Your task to perform on an android device: turn on showing notifications on the lock screen Image 0: 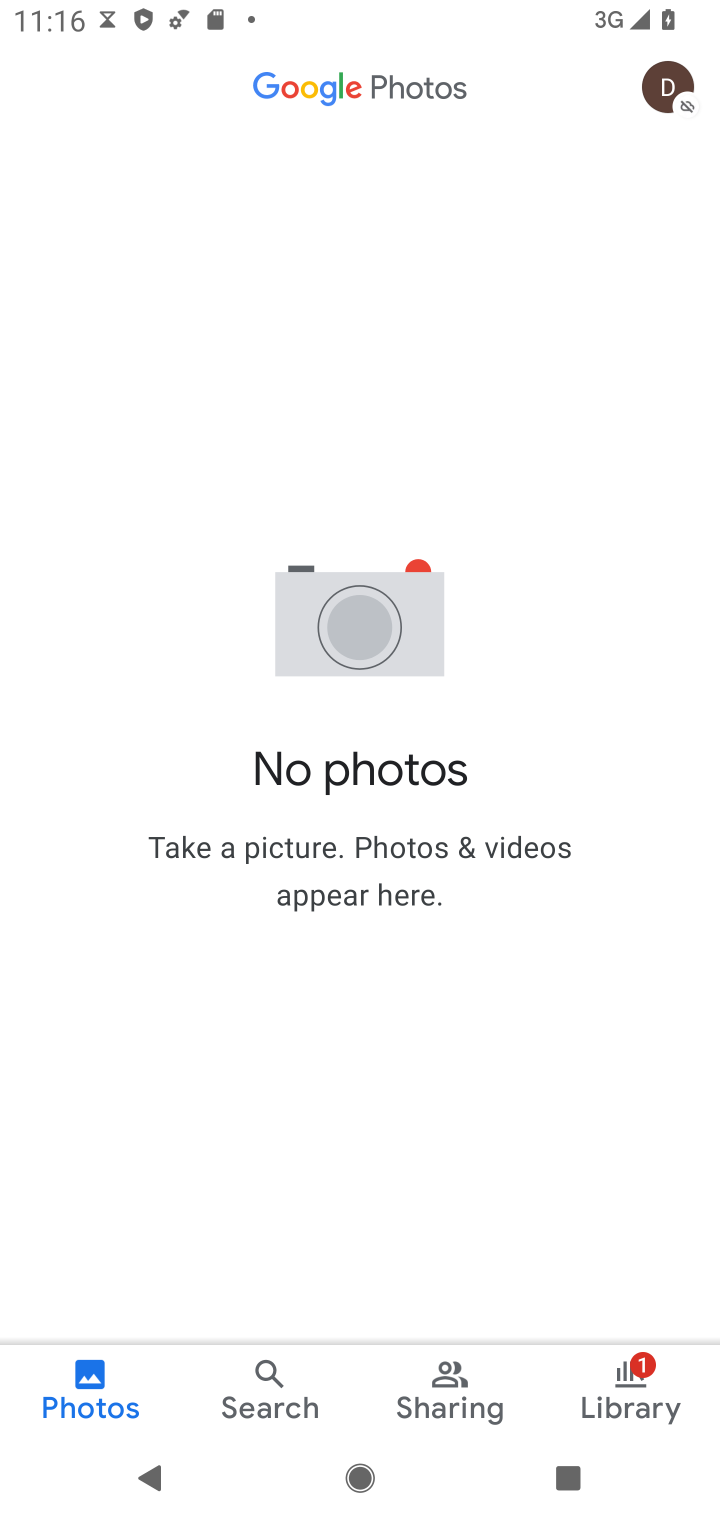
Step 0: press back button
Your task to perform on an android device: turn on showing notifications on the lock screen Image 1: 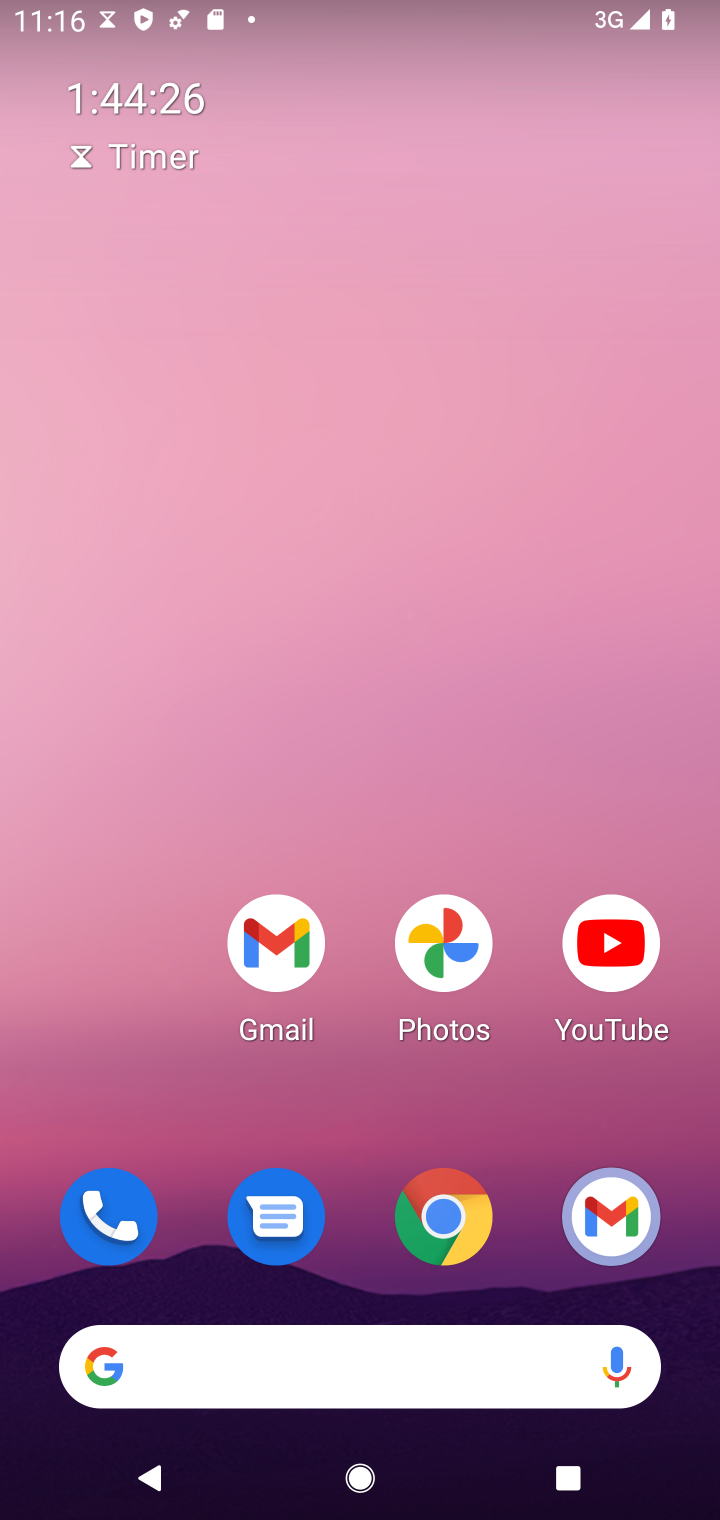
Step 1: drag from (120, 1114) to (277, 85)
Your task to perform on an android device: turn on showing notifications on the lock screen Image 2: 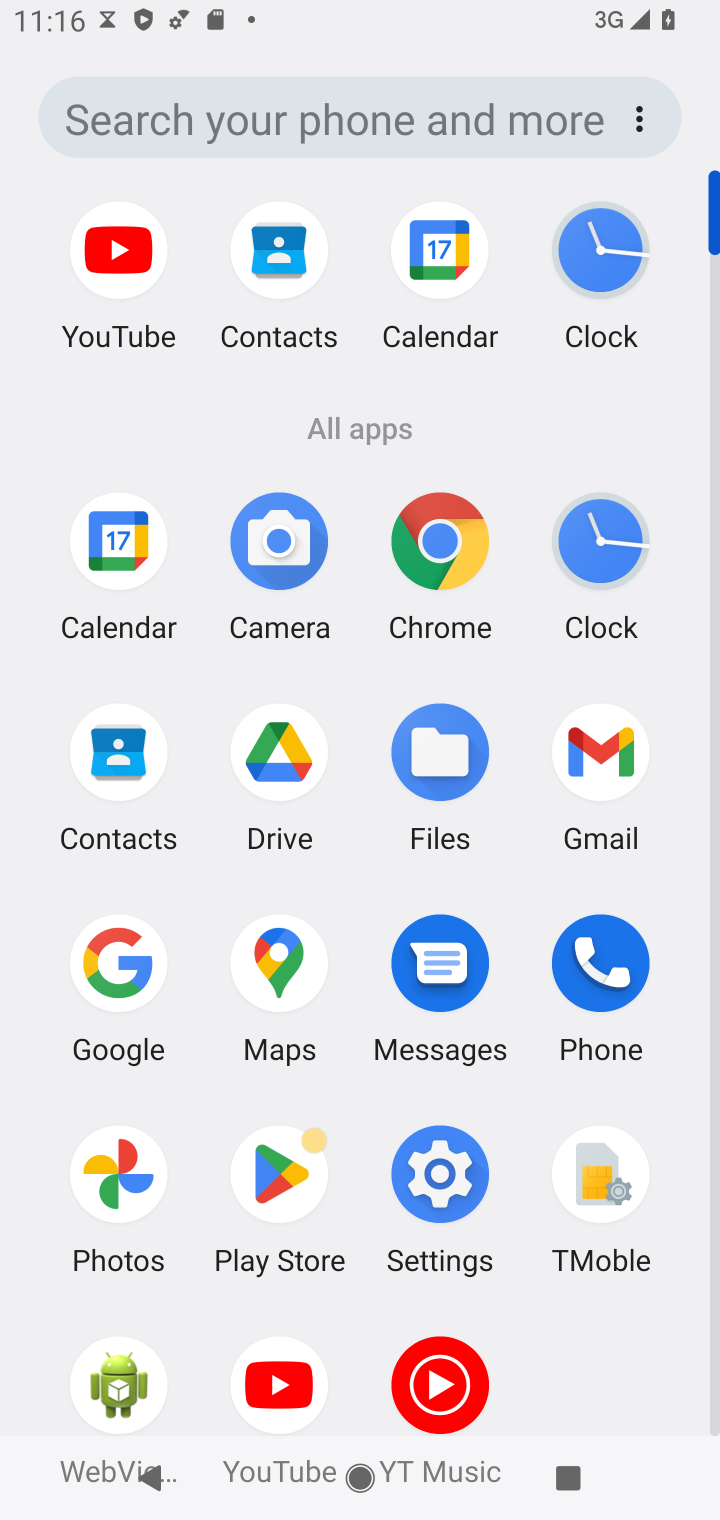
Step 2: click (481, 1180)
Your task to perform on an android device: turn on showing notifications on the lock screen Image 3: 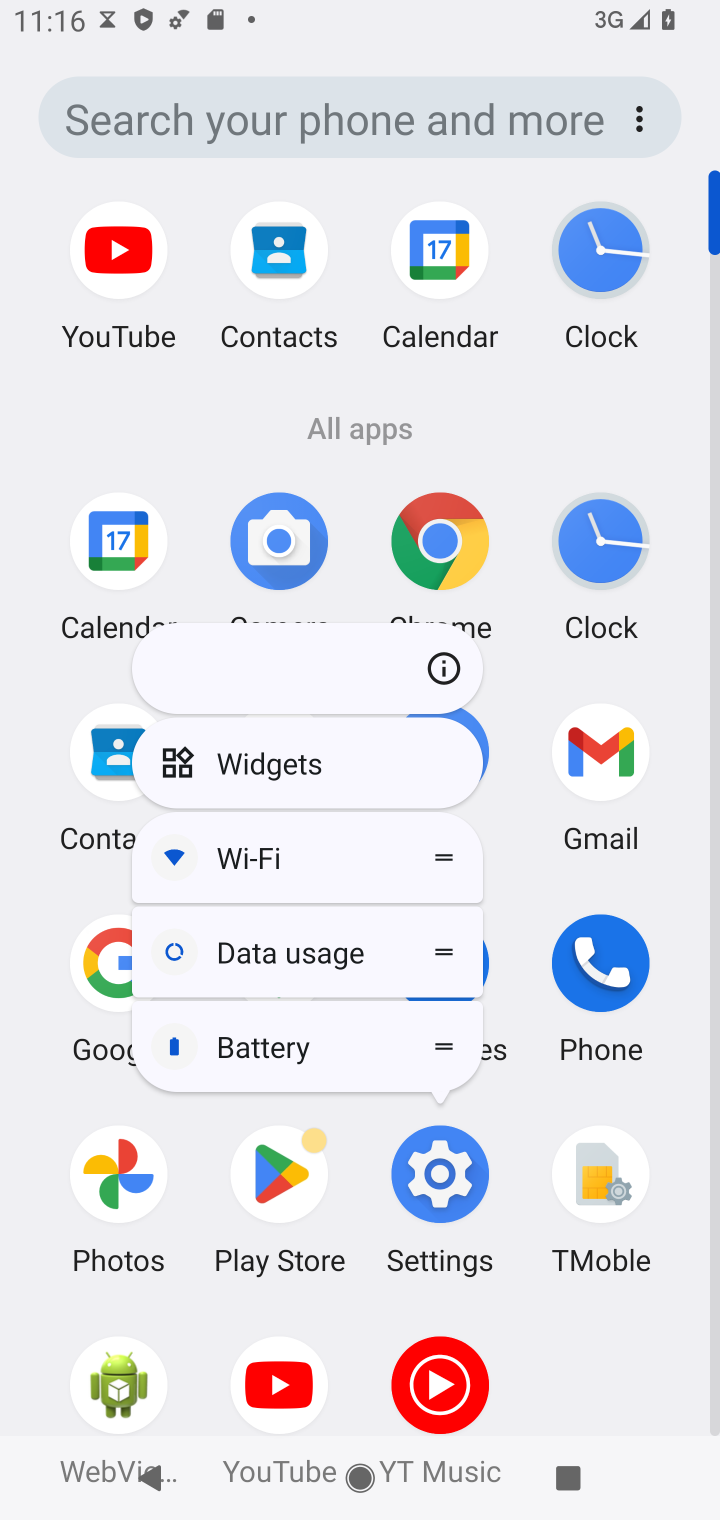
Step 3: click (416, 1170)
Your task to perform on an android device: turn on showing notifications on the lock screen Image 4: 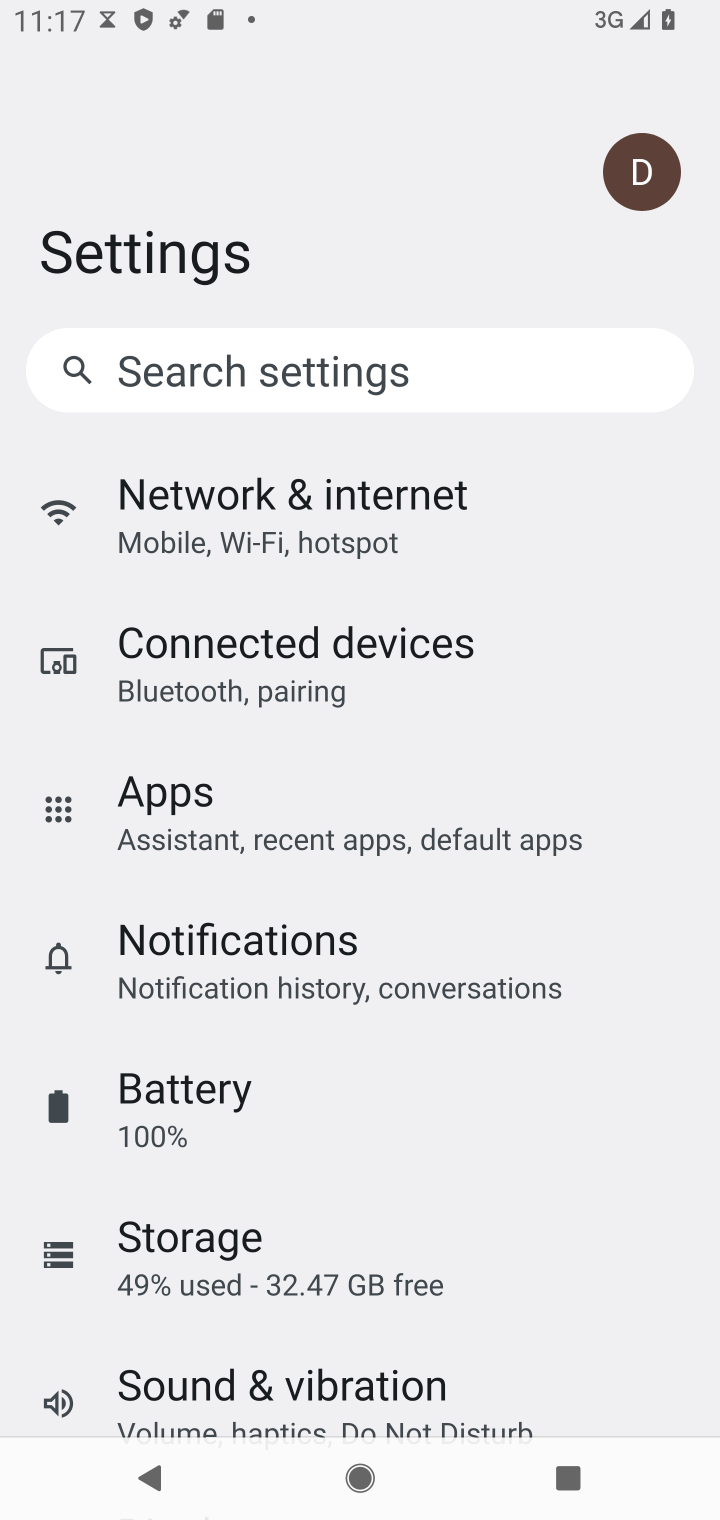
Step 4: click (374, 978)
Your task to perform on an android device: turn on showing notifications on the lock screen Image 5: 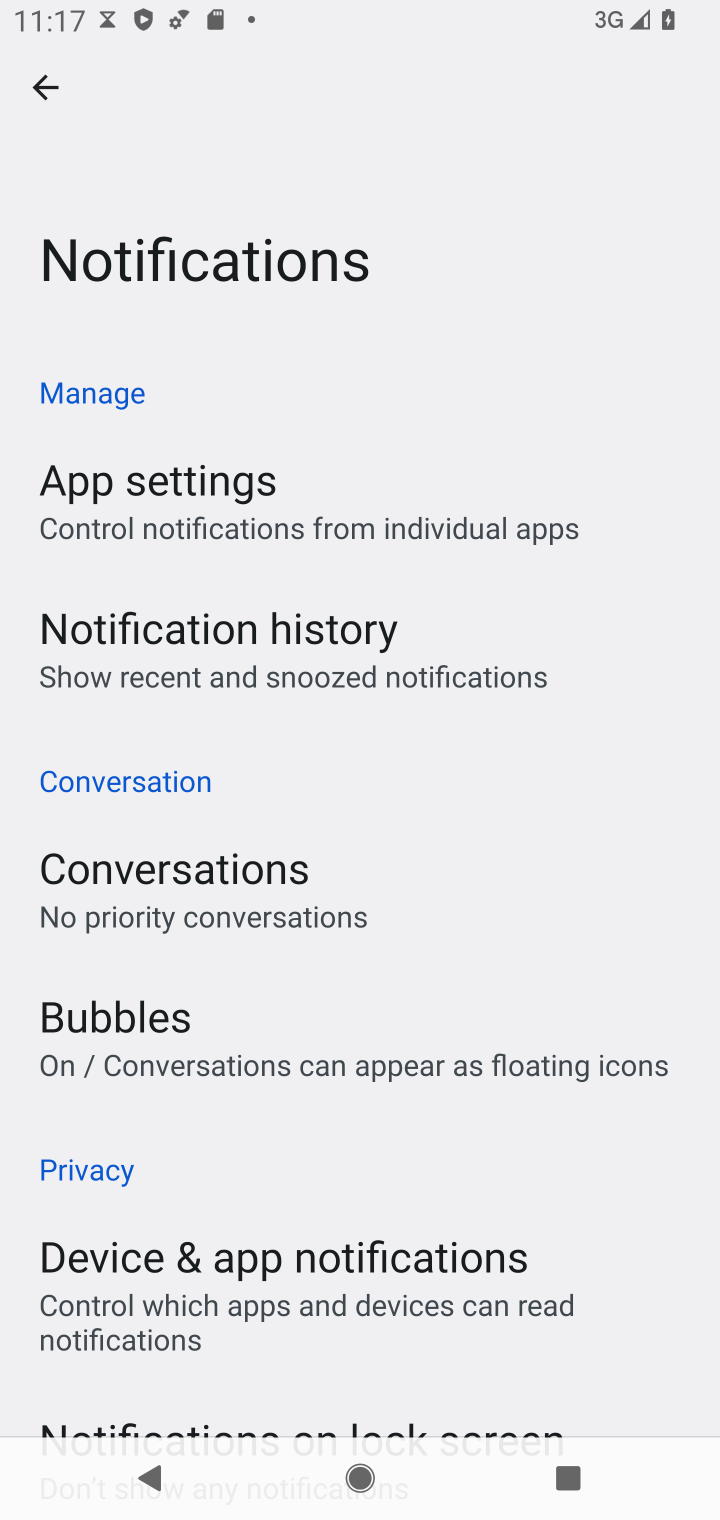
Step 5: drag from (283, 1335) to (458, 577)
Your task to perform on an android device: turn on showing notifications on the lock screen Image 6: 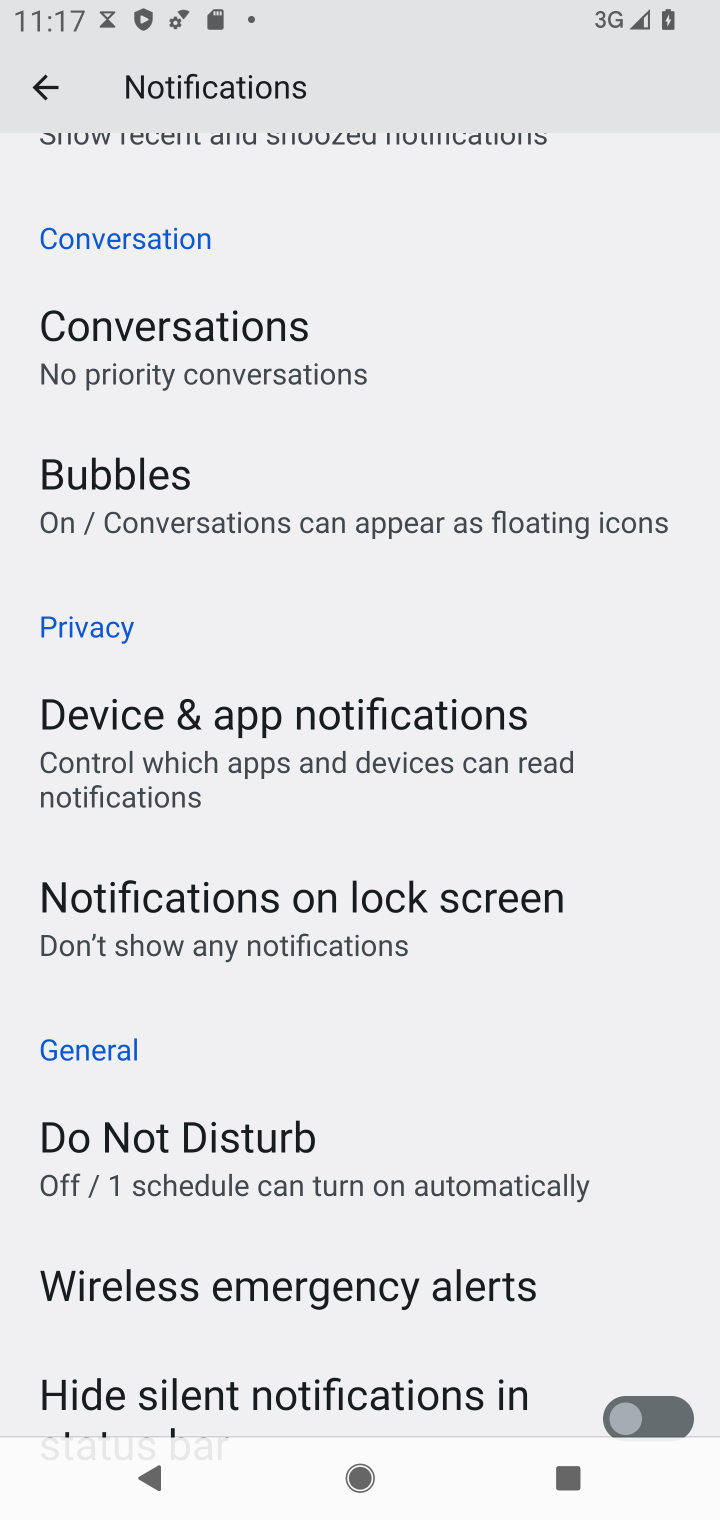
Step 6: click (283, 880)
Your task to perform on an android device: turn on showing notifications on the lock screen Image 7: 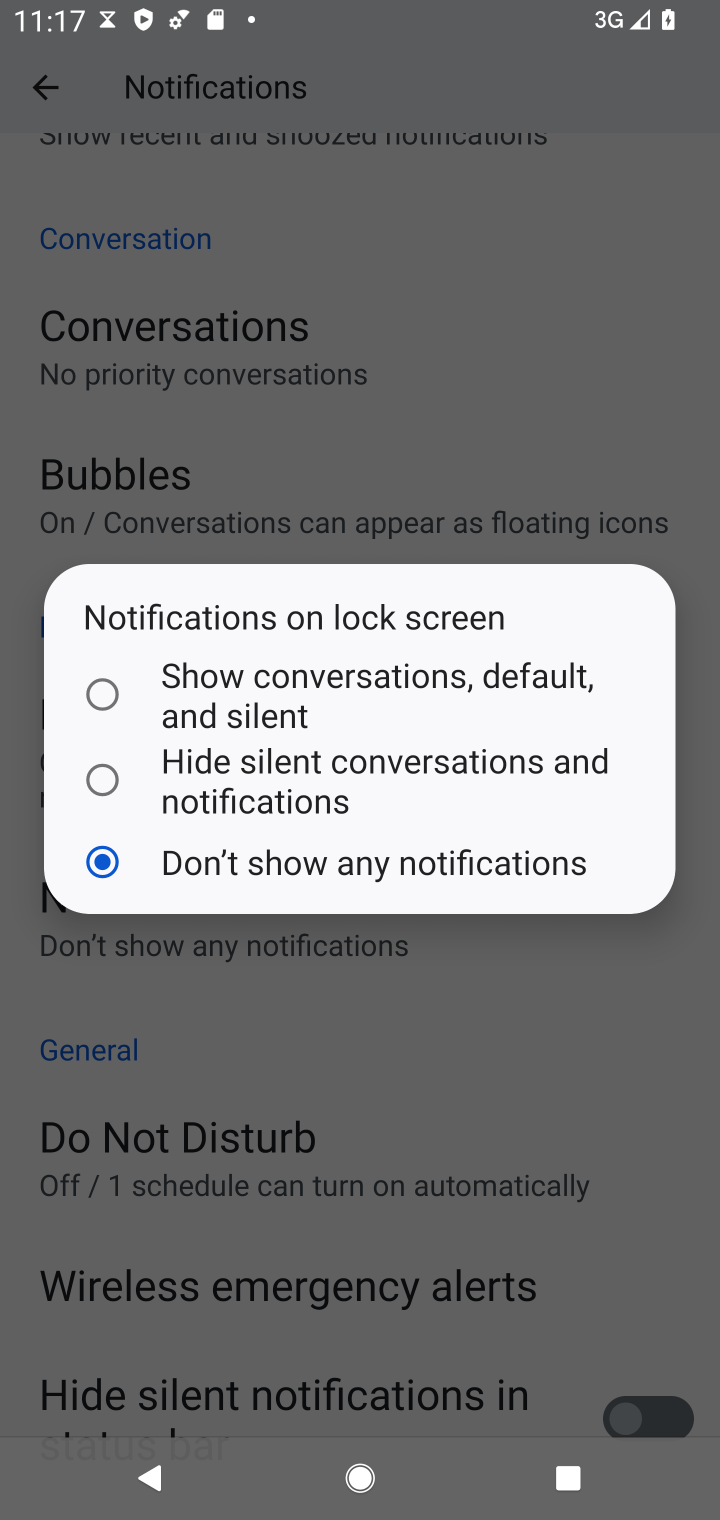
Step 7: click (137, 682)
Your task to perform on an android device: turn on showing notifications on the lock screen Image 8: 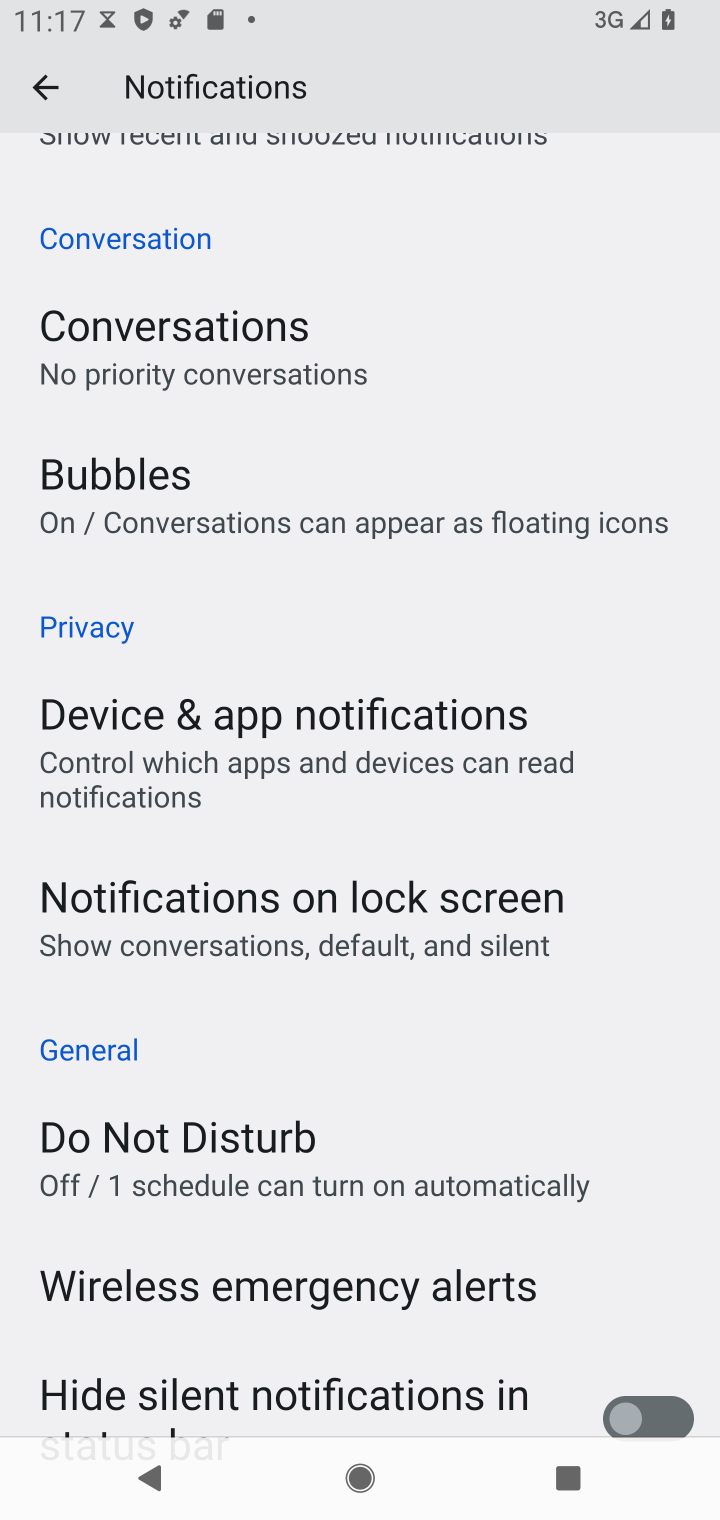
Step 8: task complete